Your task to perform on an android device: find photos in the google photos app Image 0: 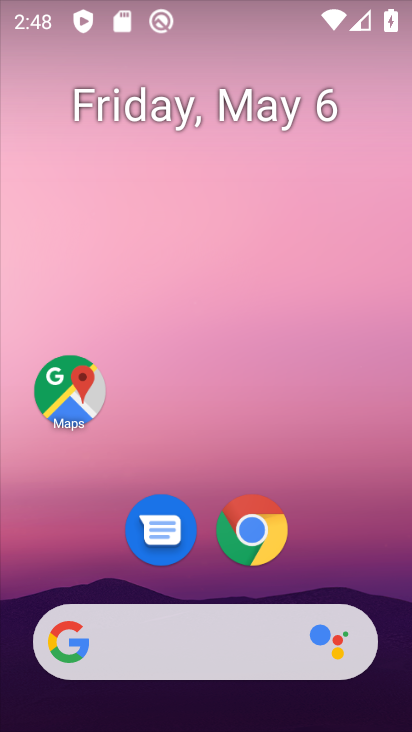
Step 0: drag from (271, 625) to (370, 134)
Your task to perform on an android device: find photos in the google photos app Image 1: 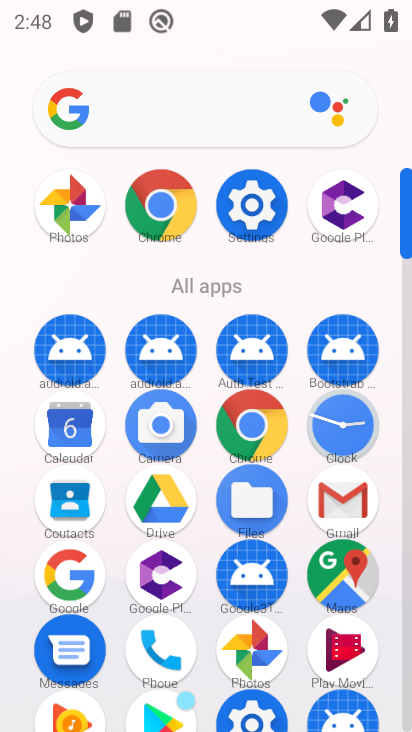
Step 1: drag from (247, 520) to (247, 249)
Your task to perform on an android device: find photos in the google photos app Image 2: 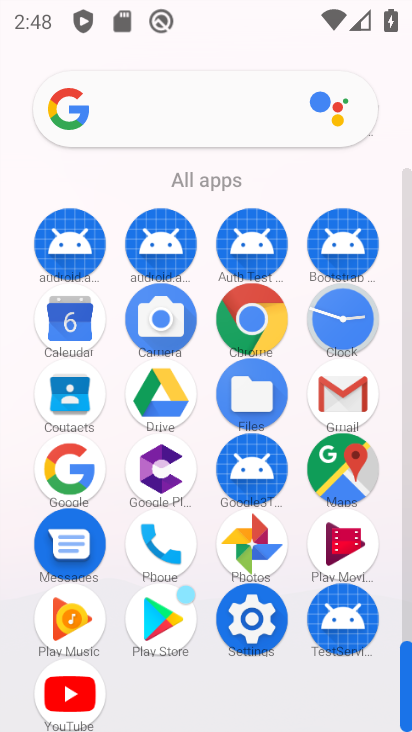
Step 2: click (246, 548)
Your task to perform on an android device: find photos in the google photos app Image 3: 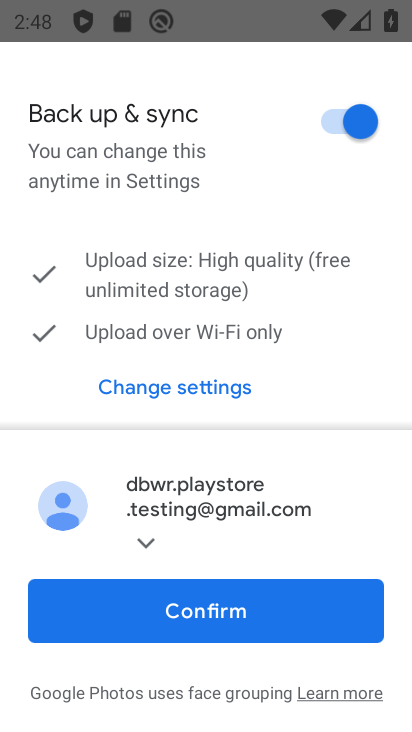
Step 3: click (288, 616)
Your task to perform on an android device: find photos in the google photos app Image 4: 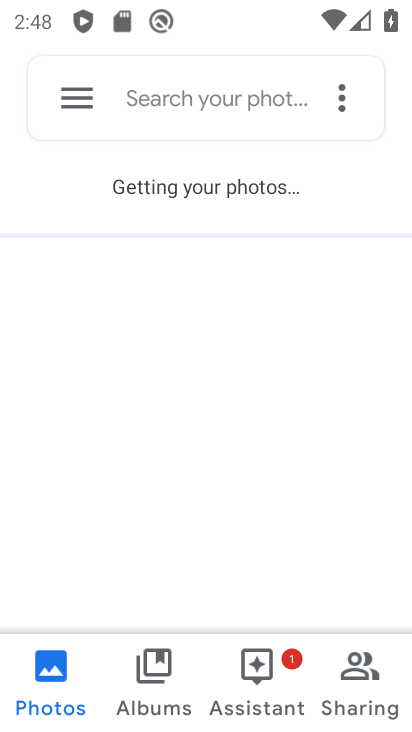
Step 4: task complete